Your task to perform on an android device: install app "The Home Depot" Image 0: 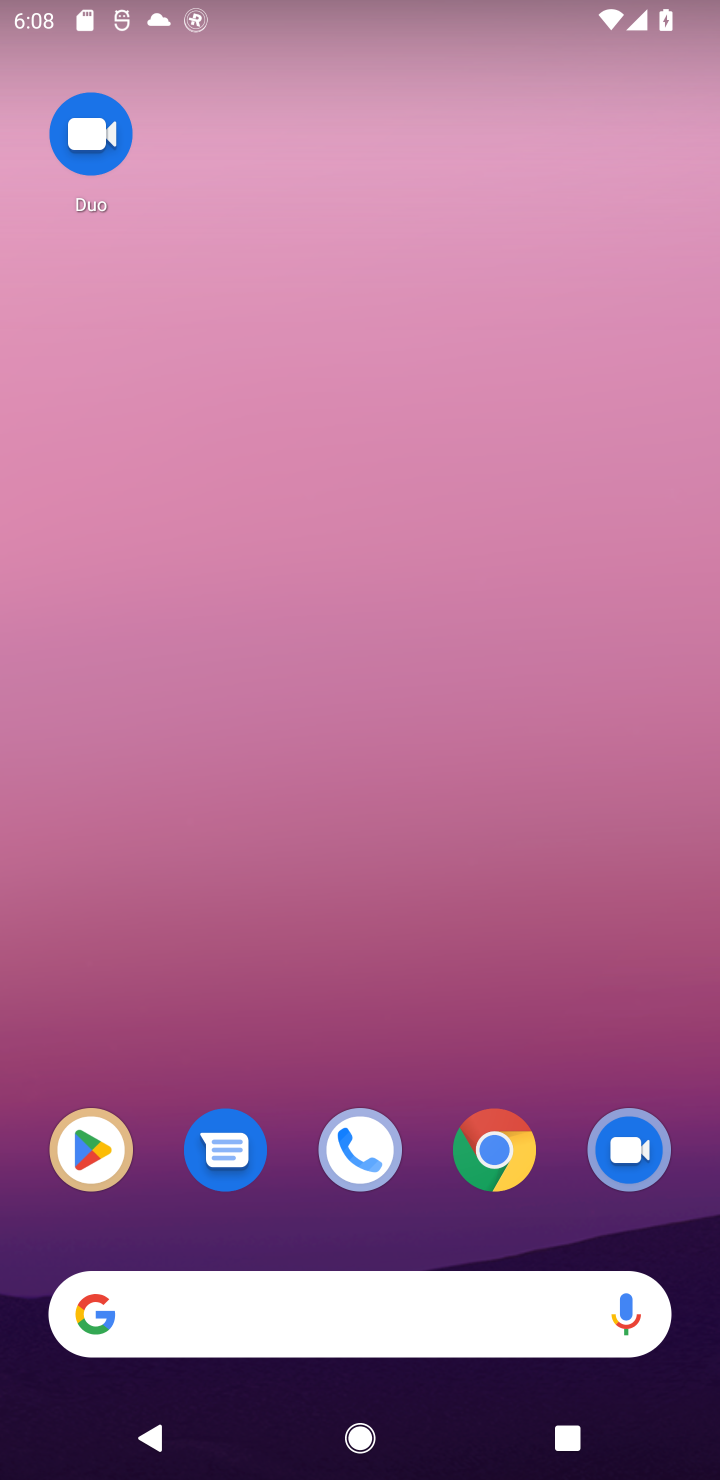
Step 0: click (78, 1180)
Your task to perform on an android device: install app "The Home Depot" Image 1: 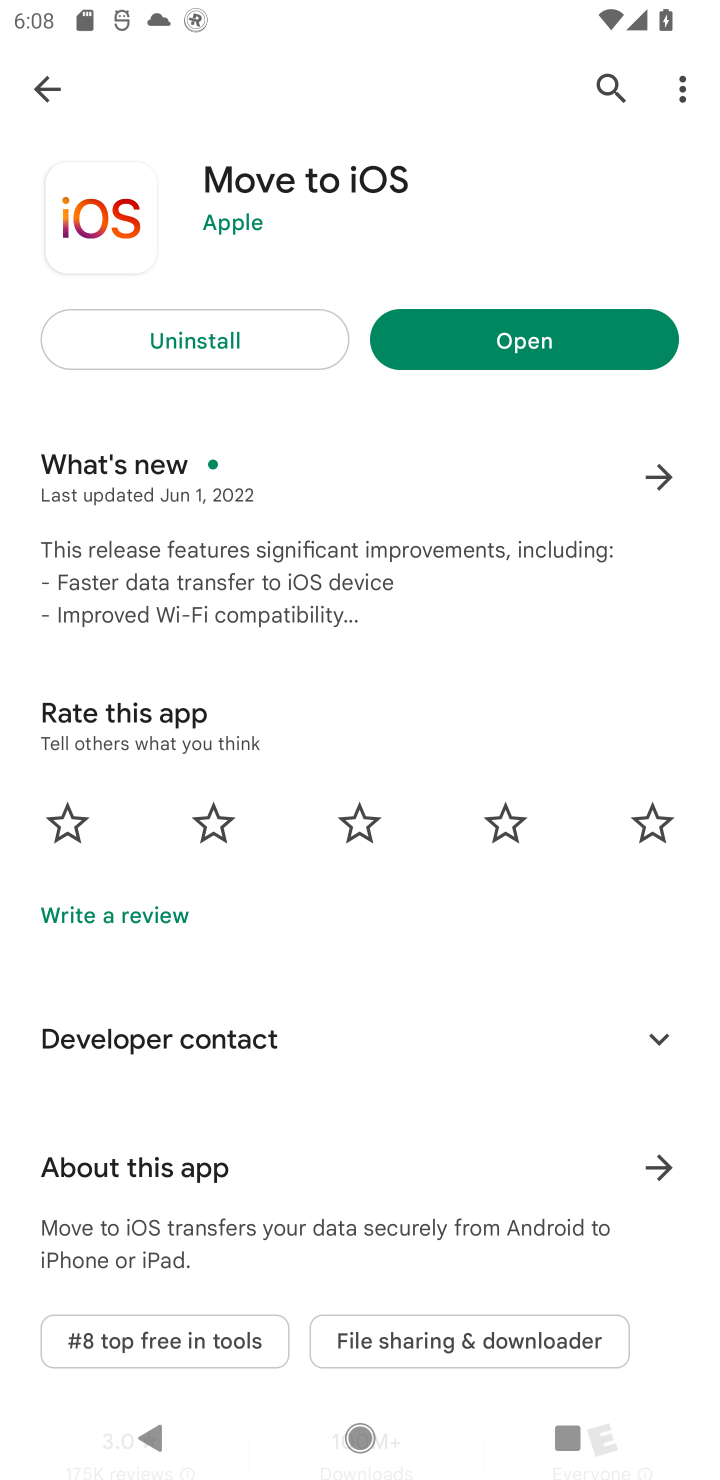
Step 1: click (619, 93)
Your task to perform on an android device: install app "The Home Depot" Image 2: 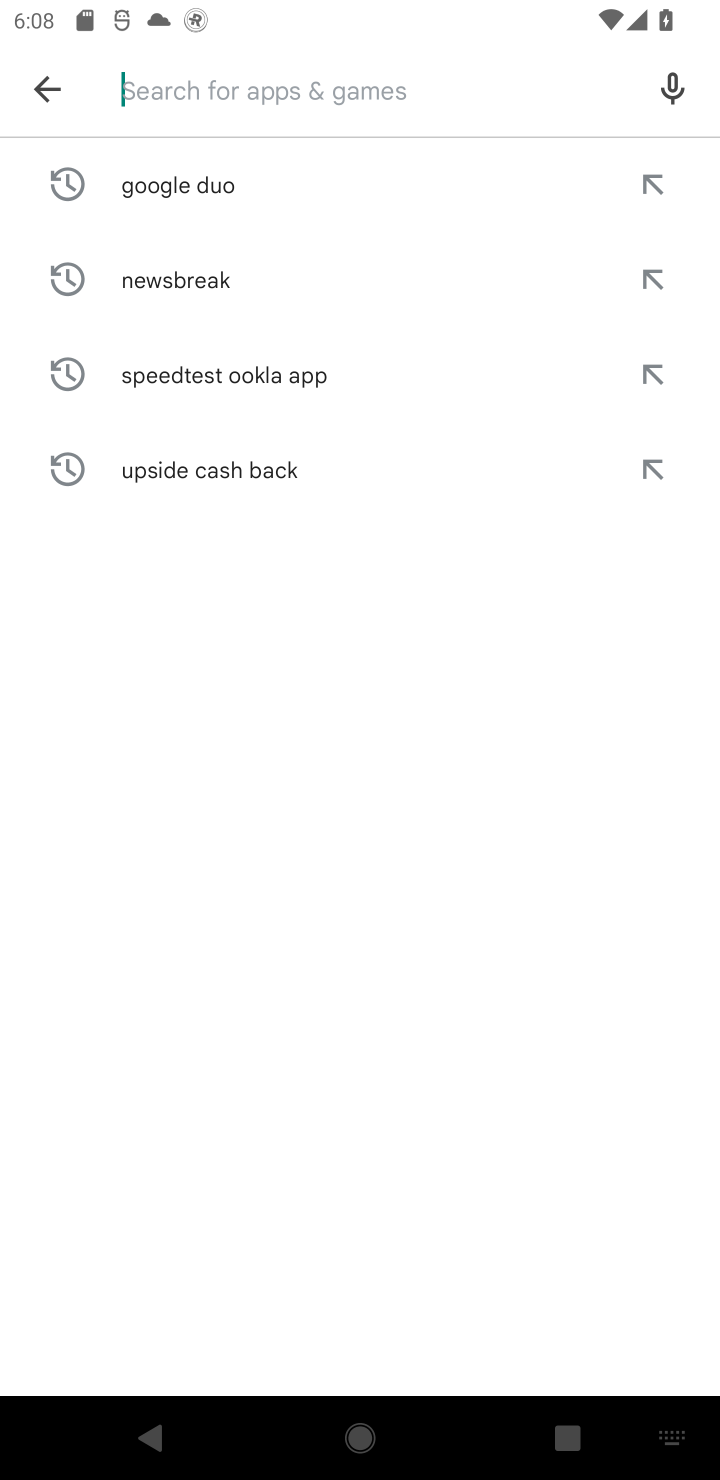
Step 2: type "home depot"
Your task to perform on an android device: install app "The Home Depot" Image 3: 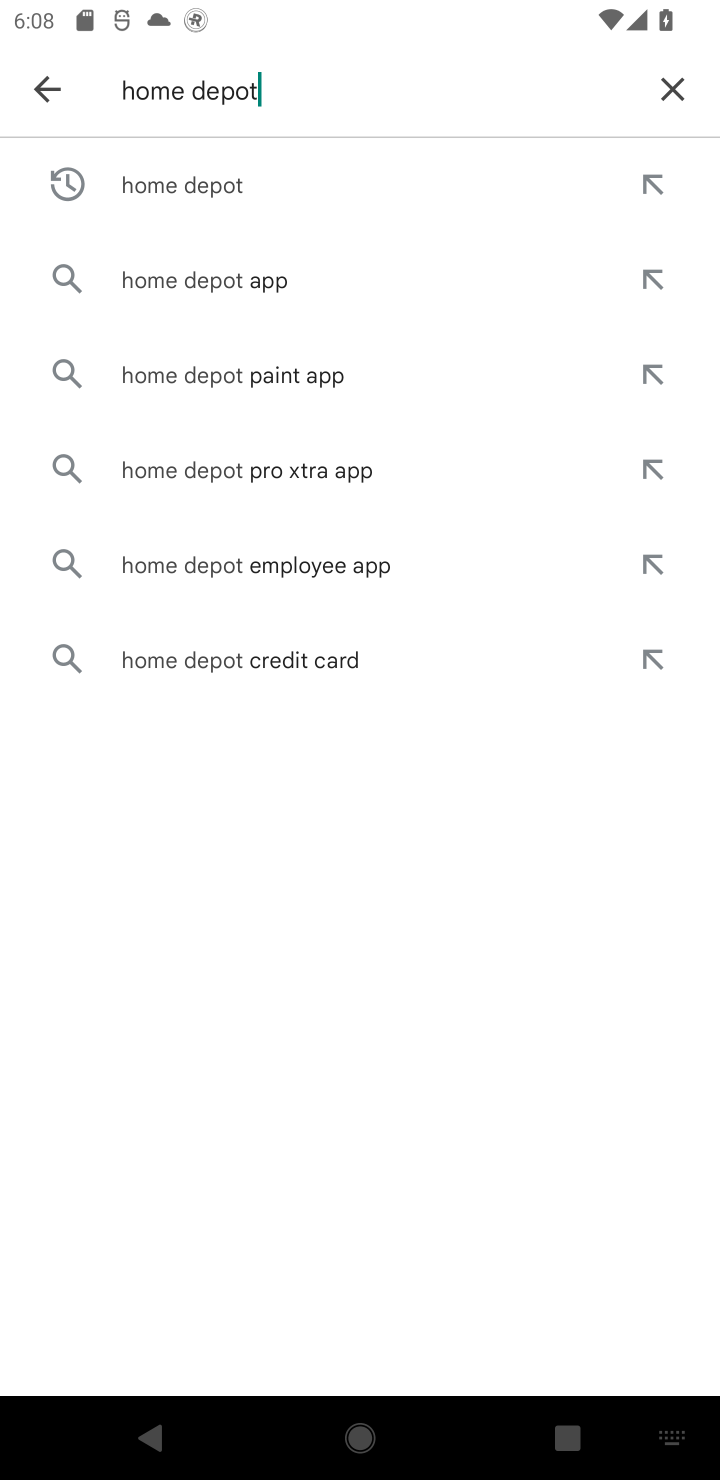
Step 3: click (339, 157)
Your task to perform on an android device: install app "The Home Depot" Image 4: 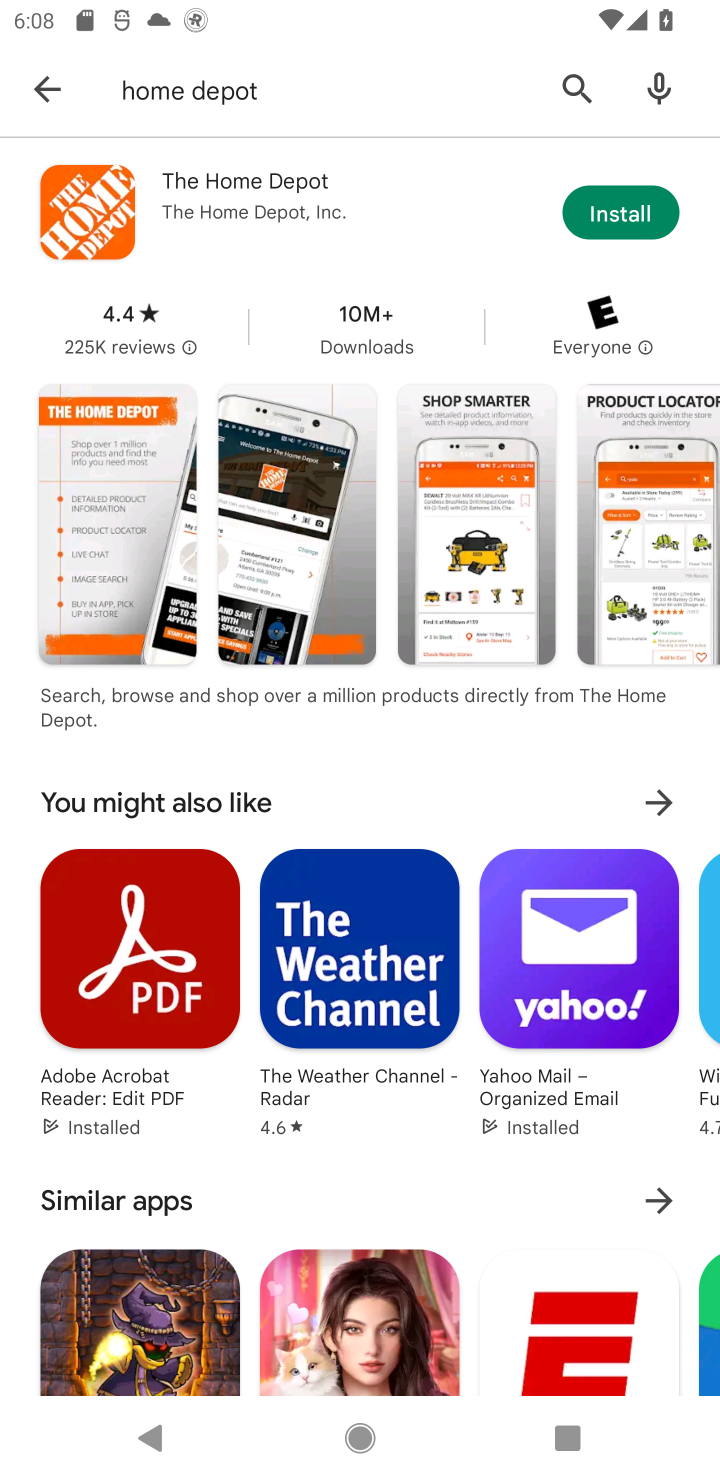
Step 4: click (645, 222)
Your task to perform on an android device: install app "The Home Depot" Image 5: 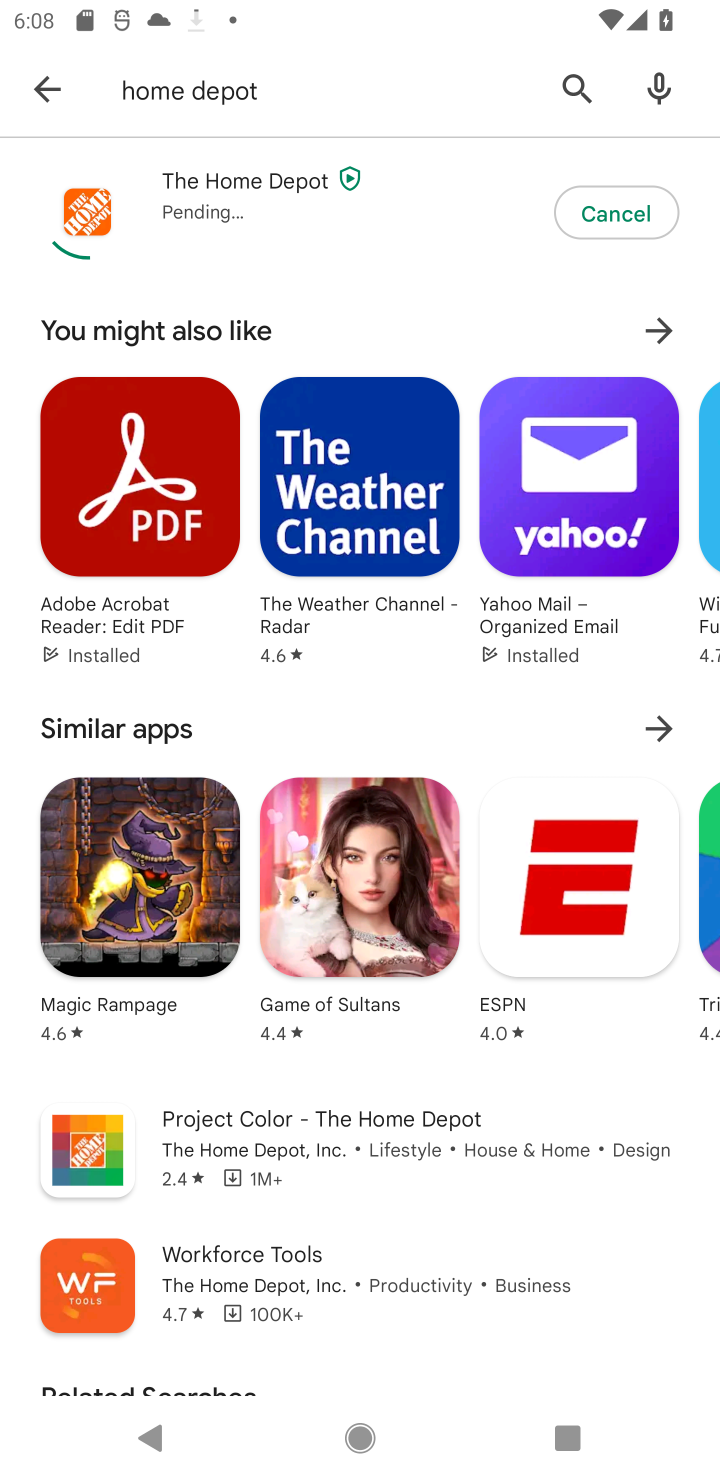
Step 5: task complete